Your task to perform on an android device: Open the map Image 0: 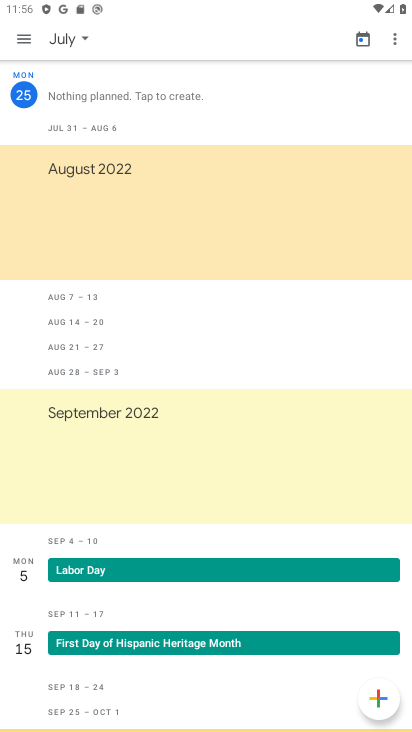
Step 0: press home button
Your task to perform on an android device: Open the map Image 1: 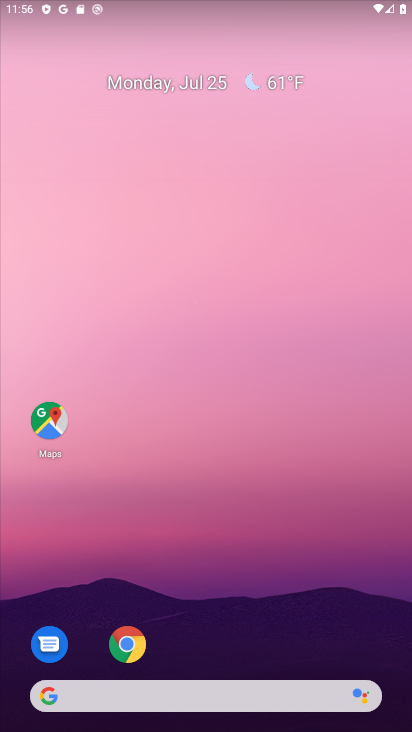
Step 1: click (38, 411)
Your task to perform on an android device: Open the map Image 2: 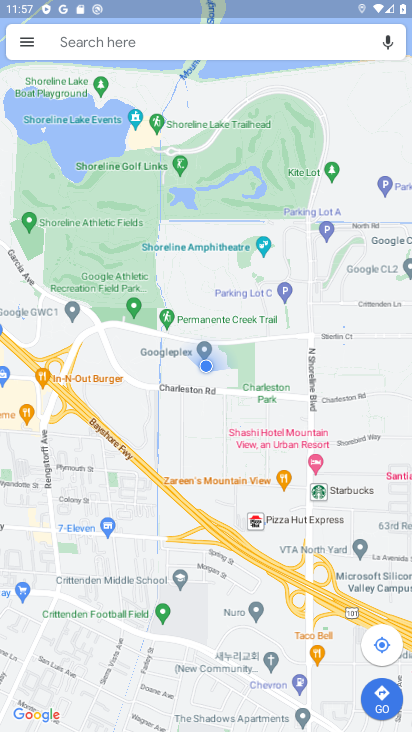
Step 2: task complete